Your task to perform on an android device: read, delete, or share a saved page in the chrome app Image 0: 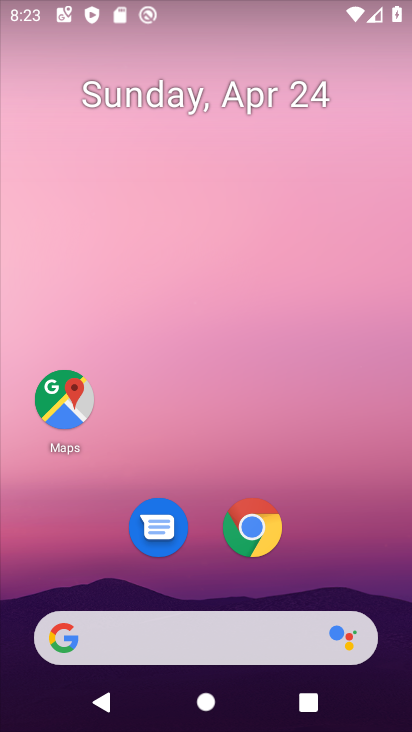
Step 0: drag from (390, 602) to (301, 13)
Your task to perform on an android device: read, delete, or share a saved page in the chrome app Image 1: 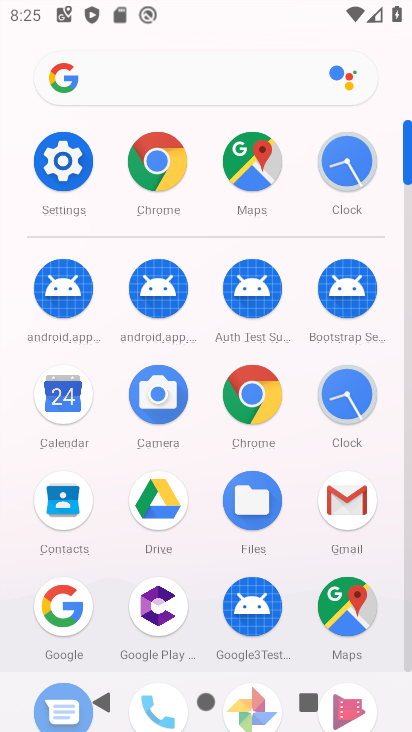
Step 1: click (253, 409)
Your task to perform on an android device: read, delete, or share a saved page in the chrome app Image 2: 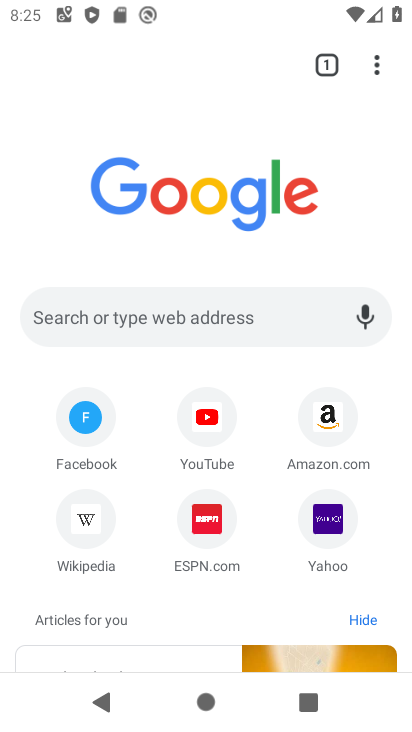
Step 2: task complete